Your task to perform on an android device: allow notifications from all sites in the chrome app Image 0: 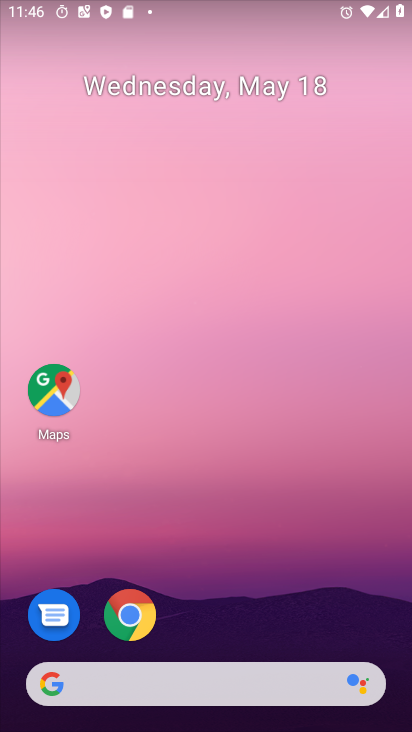
Step 0: click (135, 623)
Your task to perform on an android device: allow notifications from all sites in the chrome app Image 1: 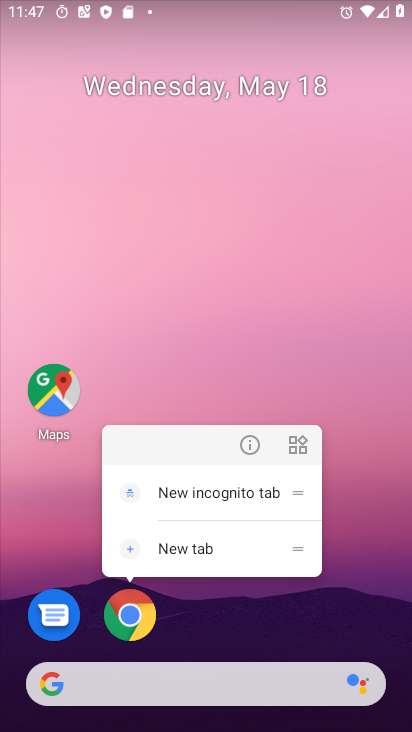
Step 1: click (144, 621)
Your task to perform on an android device: allow notifications from all sites in the chrome app Image 2: 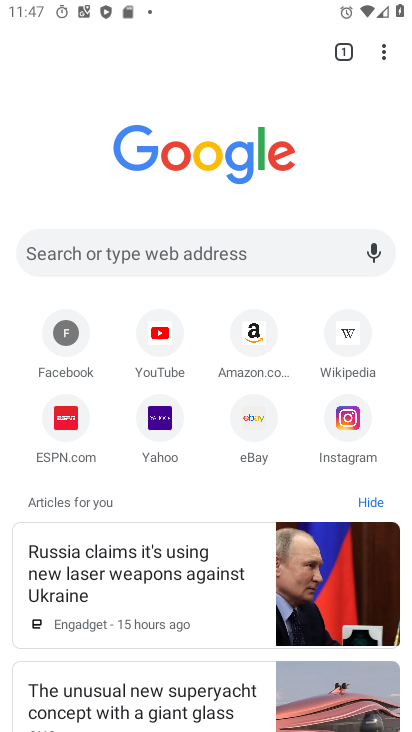
Step 2: click (388, 53)
Your task to perform on an android device: allow notifications from all sites in the chrome app Image 3: 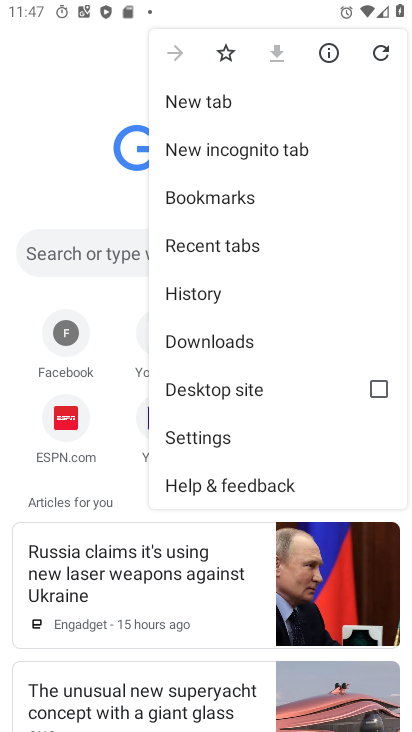
Step 3: click (233, 437)
Your task to perform on an android device: allow notifications from all sites in the chrome app Image 4: 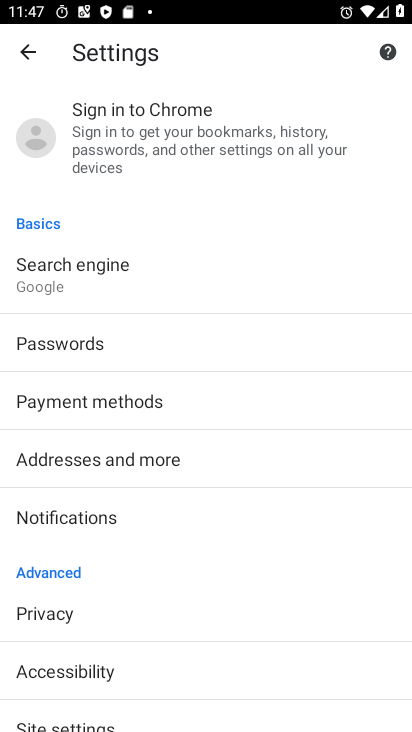
Step 4: press back button
Your task to perform on an android device: allow notifications from all sites in the chrome app Image 5: 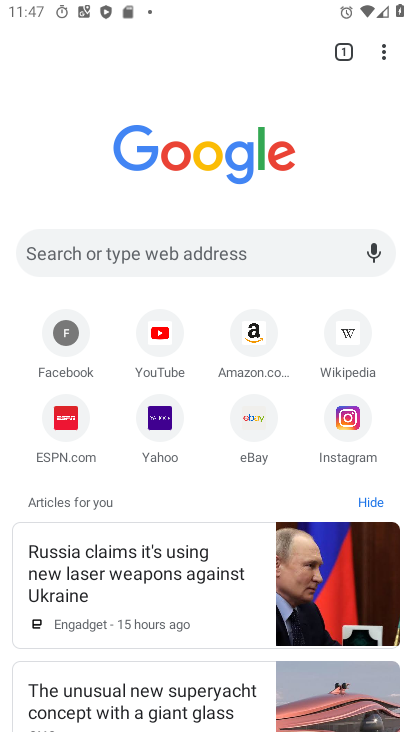
Step 5: click (386, 58)
Your task to perform on an android device: allow notifications from all sites in the chrome app Image 6: 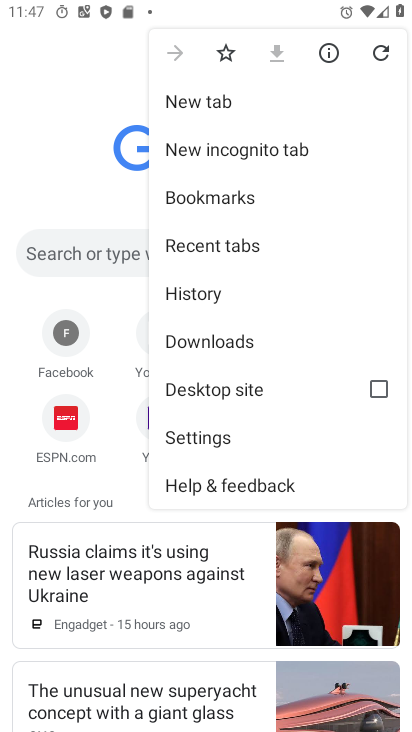
Step 6: click (236, 436)
Your task to perform on an android device: allow notifications from all sites in the chrome app Image 7: 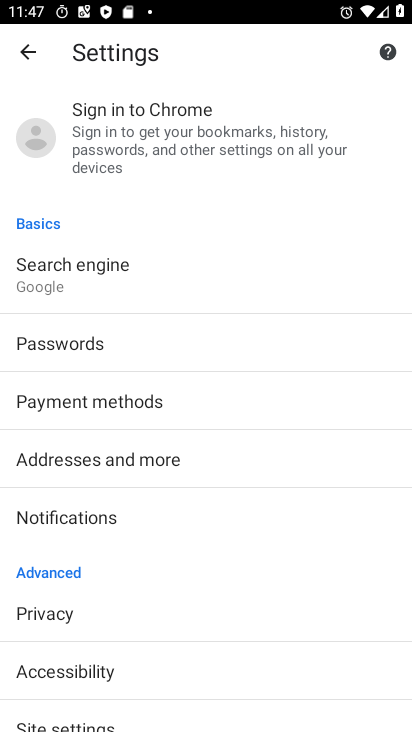
Step 7: drag from (10, 652) to (202, 240)
Your task to perform on an android device: allow notifications from all sites in the chrome app Image 8: 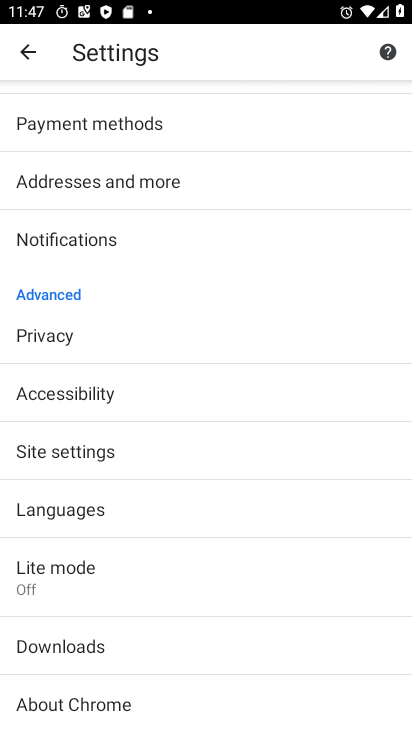
Step 8: click (103, 455)
Your task to perform on an android device: allow notifications from all sites in the chrome app Image 9: 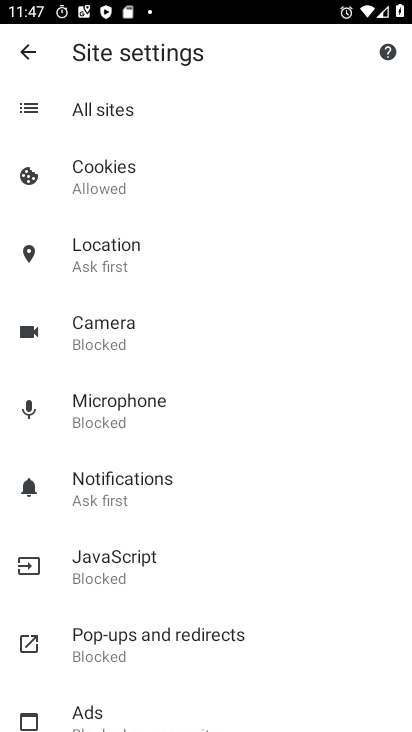
Step 9: drag from (8, 528) to (95, 308)
Your task to perform on an android device: allow notifications from all sites in the chrome app Image 10: 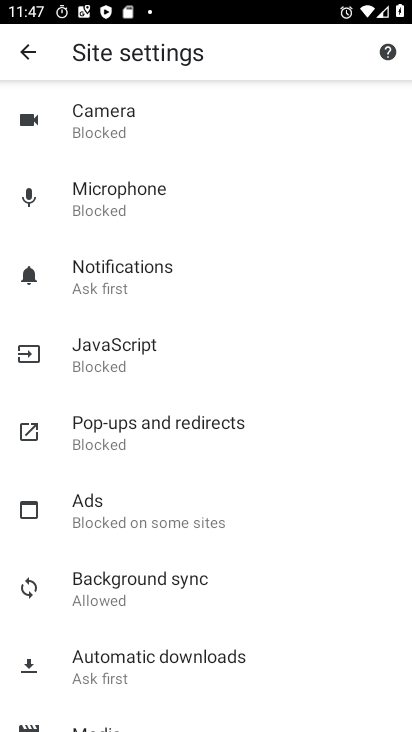
Step 10: click (118, 259)
Your task to perform on an android device: allow notifications from all sites in the chrome app Image 11: 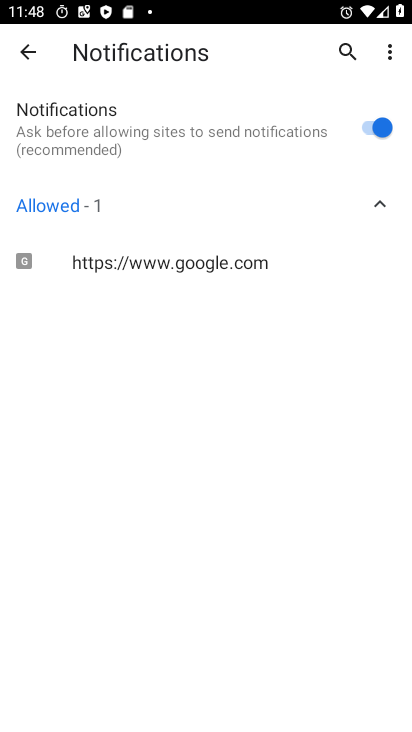
Step 11: task complete